Your task to perform on an android device: Search for the best rated phone case for the iPhone 8. Image 0: 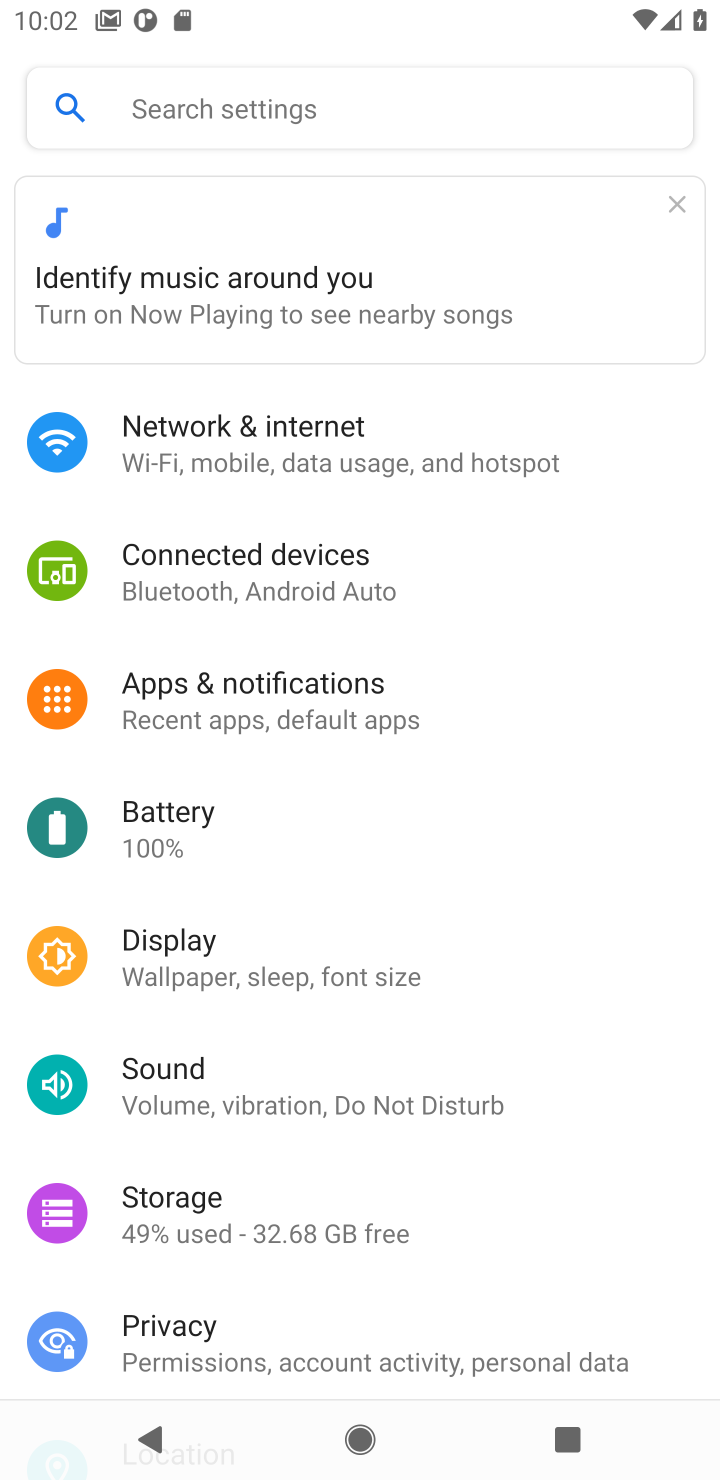
Step 0: press home button
Your task to perform on an android device: Search for the best rated phone case for the iPhone 8. Image 1: 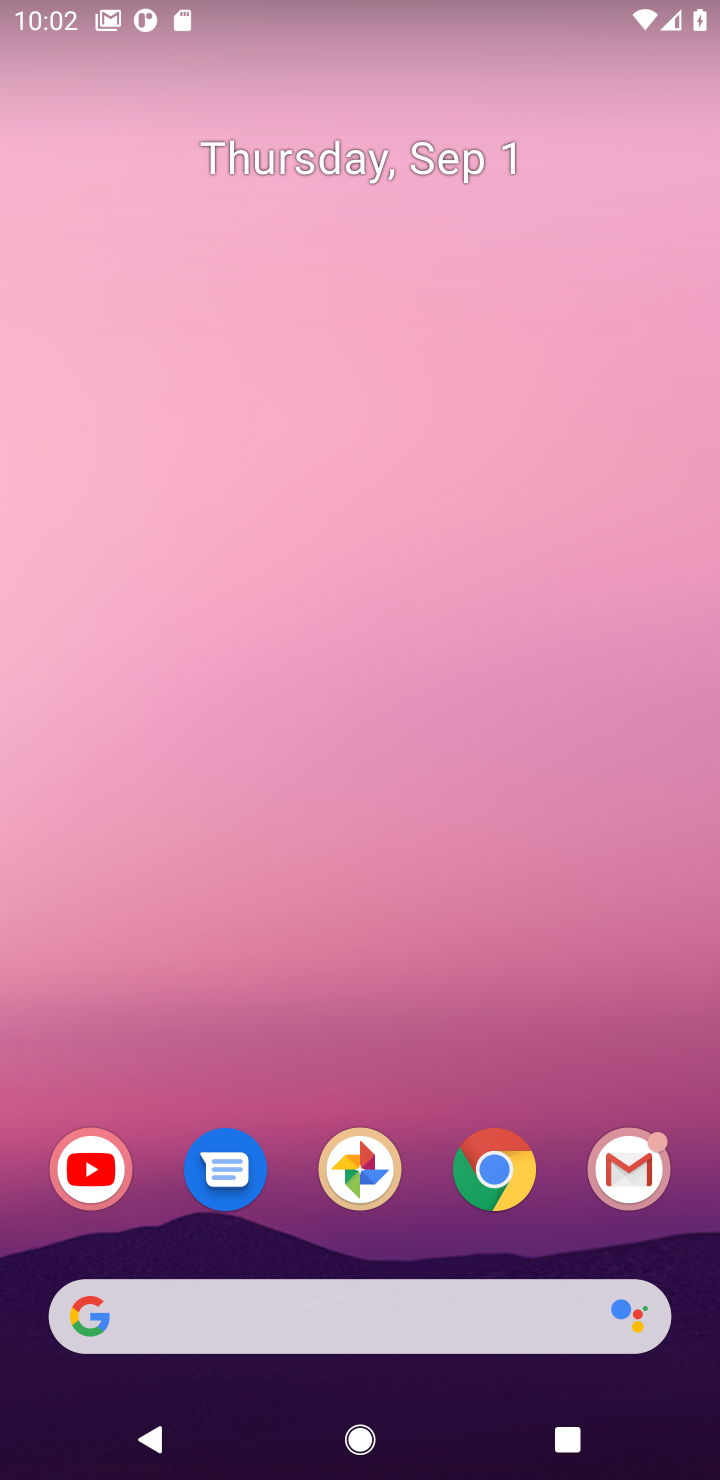
Step 1: drag from (419, 1211) to (444, 175)
Your task to perform on an android device: Search for the best rated phone case for the iPhone 8. Image 2: 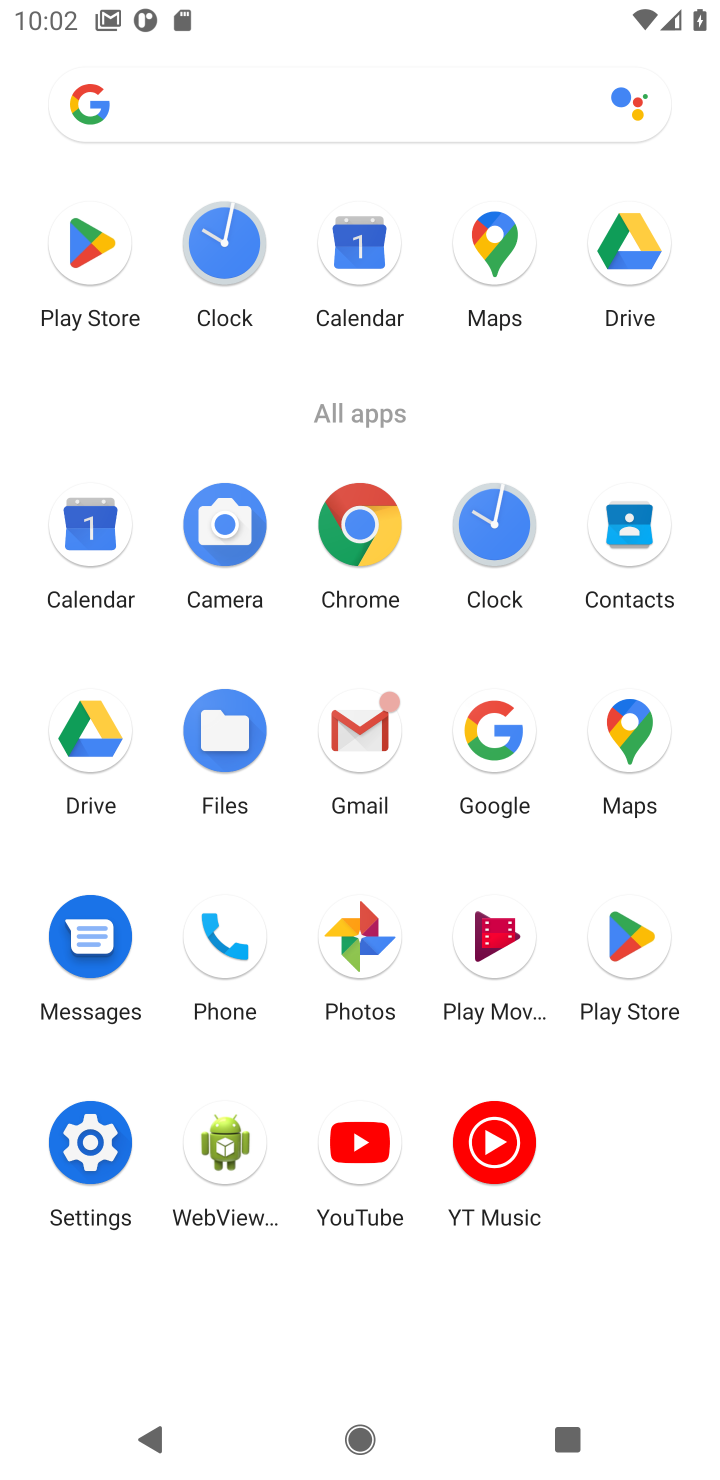
Step 2: click (357, 519)
Your task to perform on an android device: Search for the best rated phone case for the iPhone 8. Image 3: 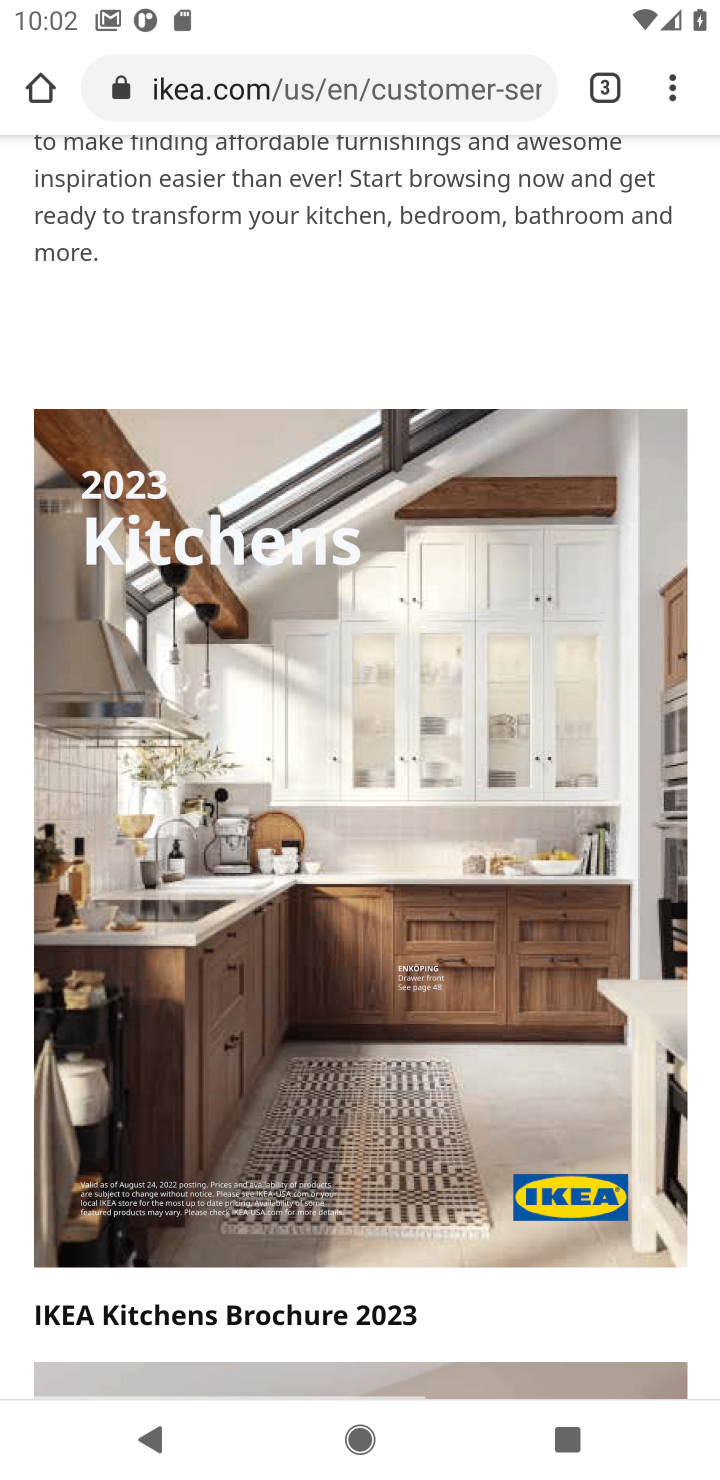
Step 3: click (266, 74)
Your task to perform on an android device: Search for the best rated phone case for the iPhone 8. Image 4: 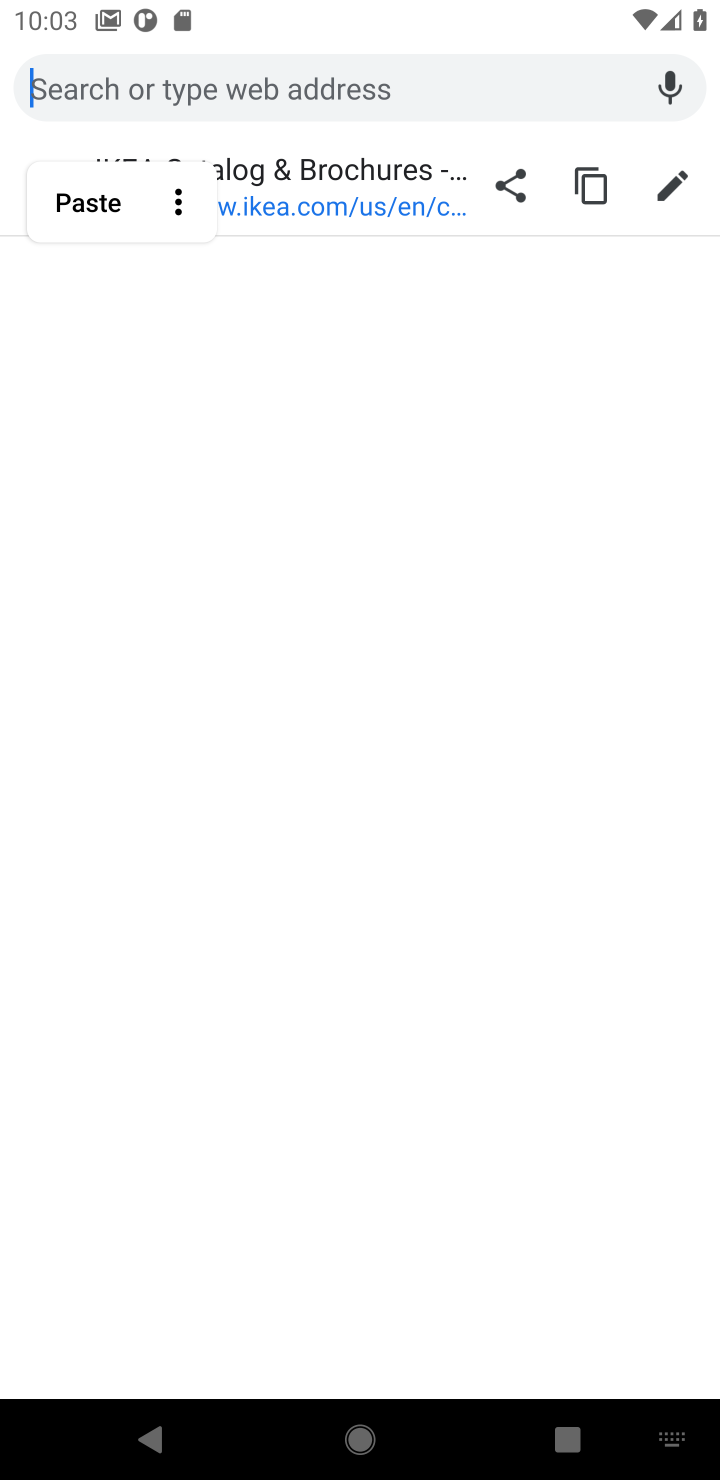
Step 4: type "best rated phone case for the iPhone 8"
Your task to perform on an android device: Search for the best rated phone case for the iPhone 8. Image 5: 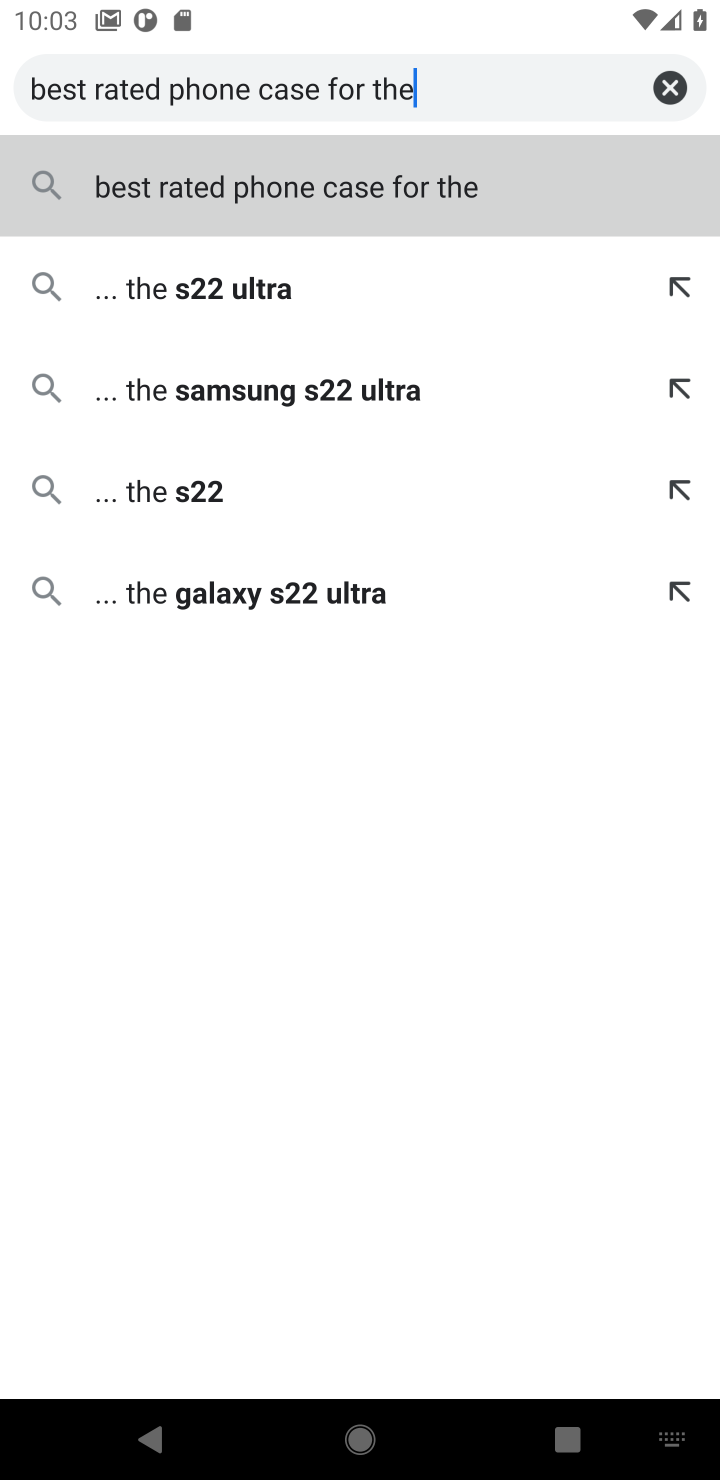
Step 5: type " iPhone 8"
Your task to perform on an android device: Search for the best rated phone case for the iPhone 8. Image 6: 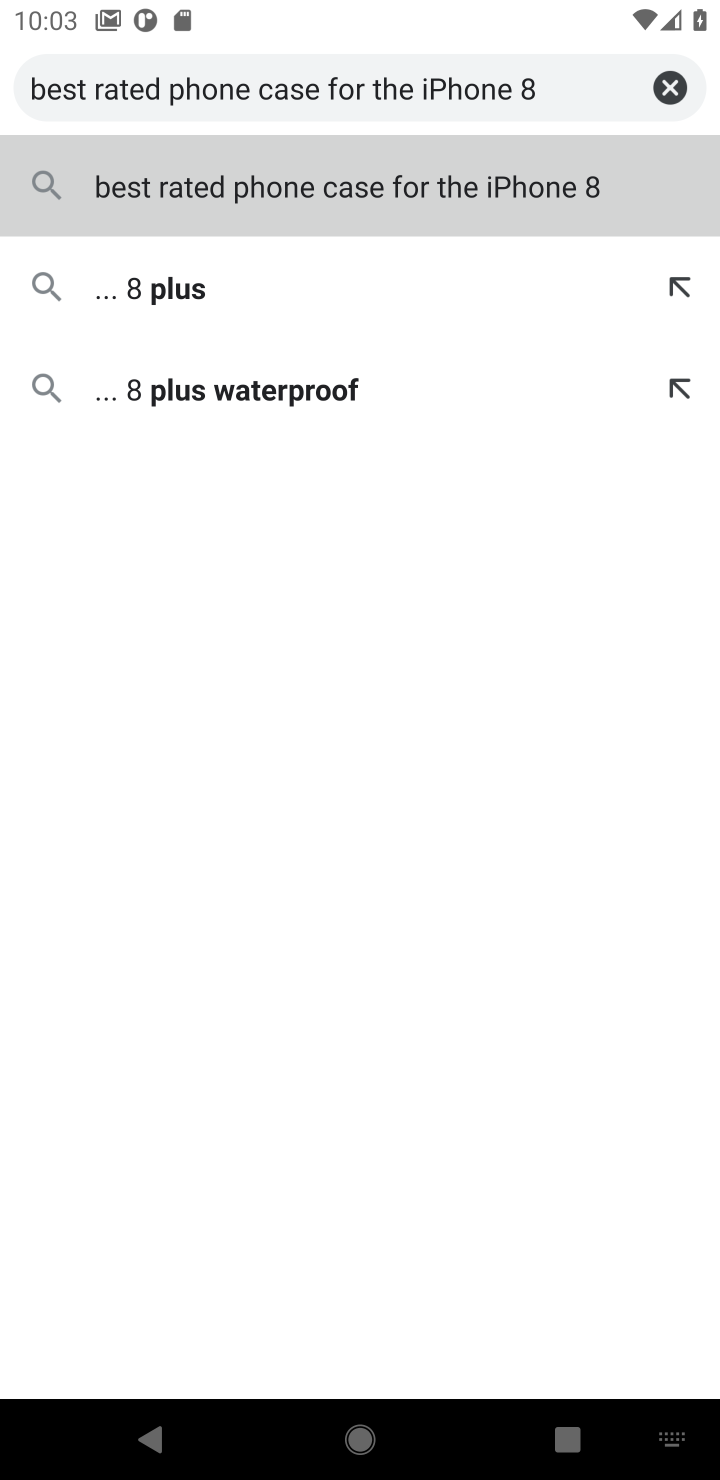
Step 6: click (488, 186)
Your task to perform on an android device: Search for the best rated phone case for the iPhone 8. Image 7: 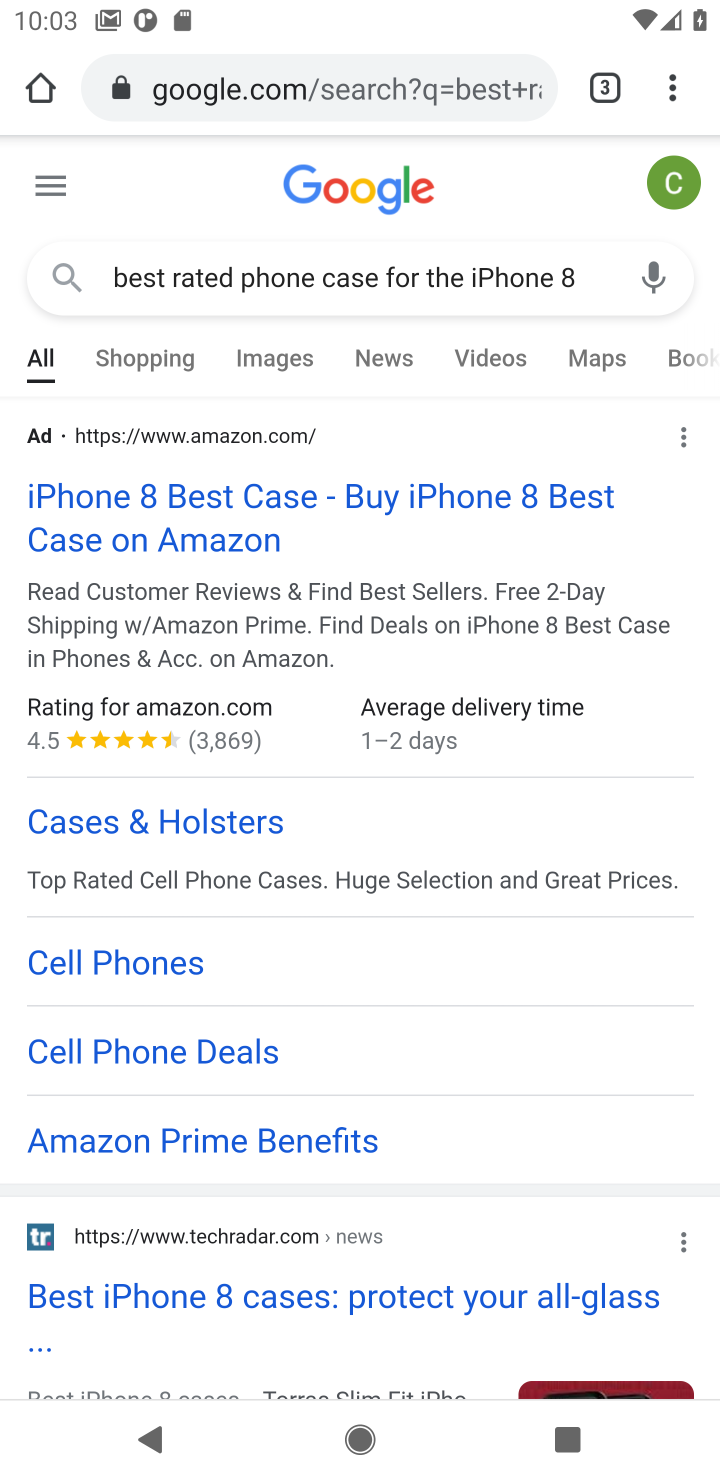
Step 7: click (332, 1297)
Your task to perform on an android device: Search for the best rated phone case for the iPhone 8. Image 8: 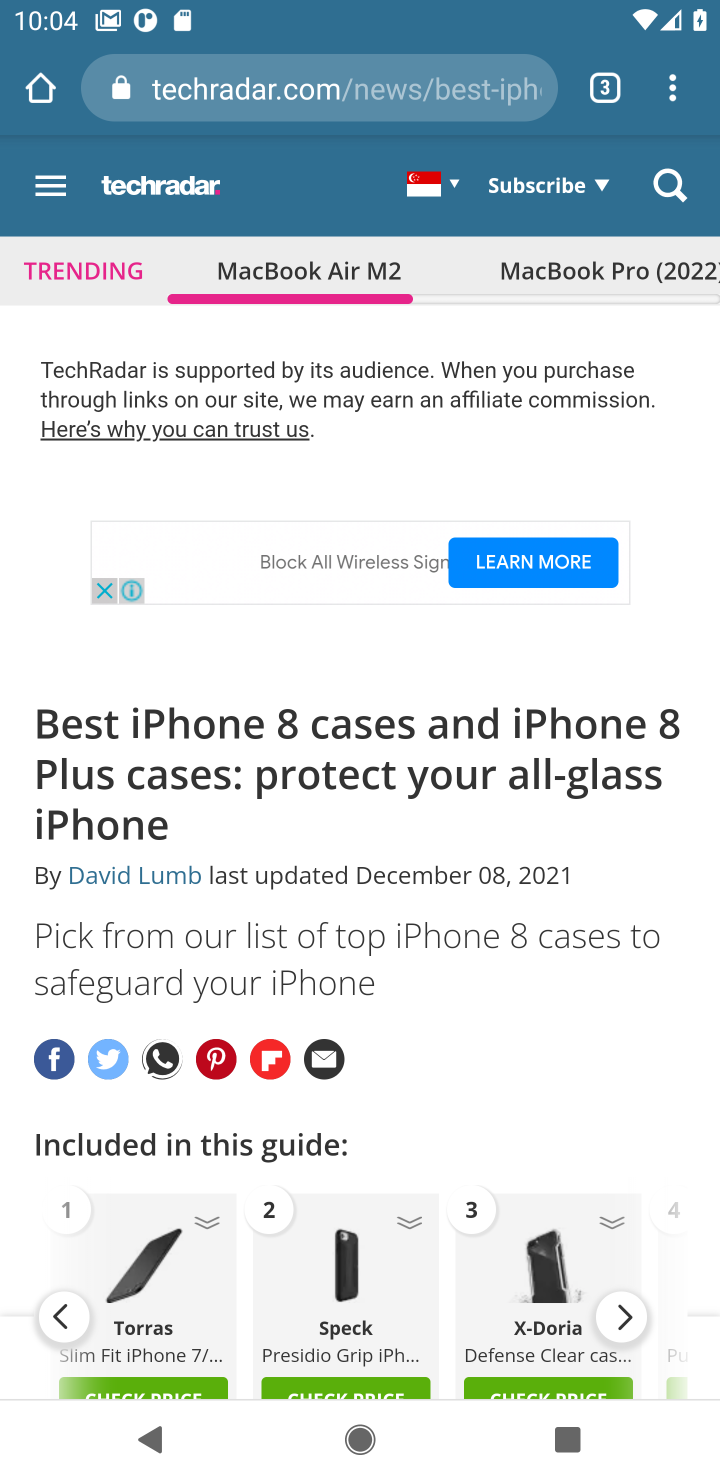
Step 8: drag from (468, 1049) to (432, 425)
Your task to perform on an android device: Search for the best rated phone case for the iPhone 8. Image 9: 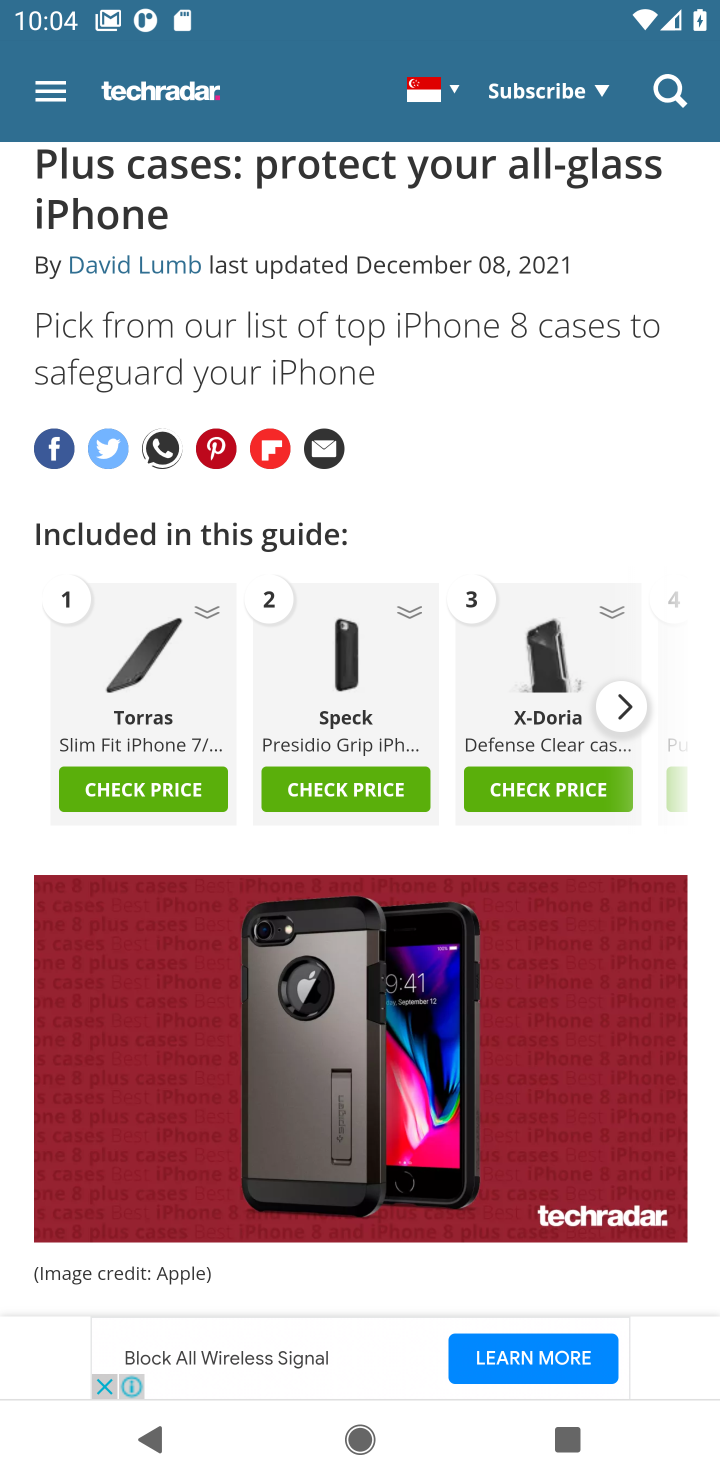
Step 9: drag from (385, 457) to (385, 326)
Your task to perform on an android device: Search for the best rated phone case for the iPhone 8. Image 10: 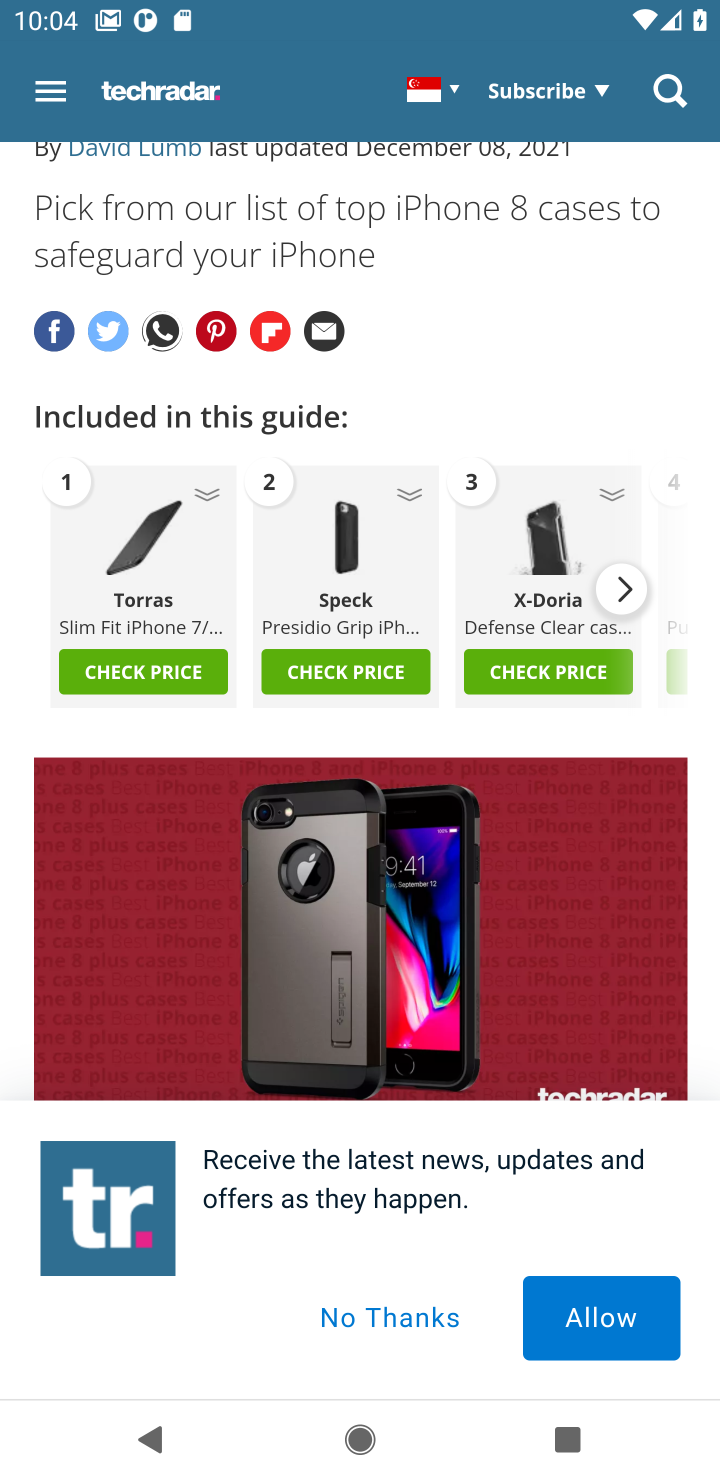
Step 10: drag from (367, 1069) to (409, 306)
Your task to perform on an android device: Search for the best rated phone case for the iPhone 8. Image 11: 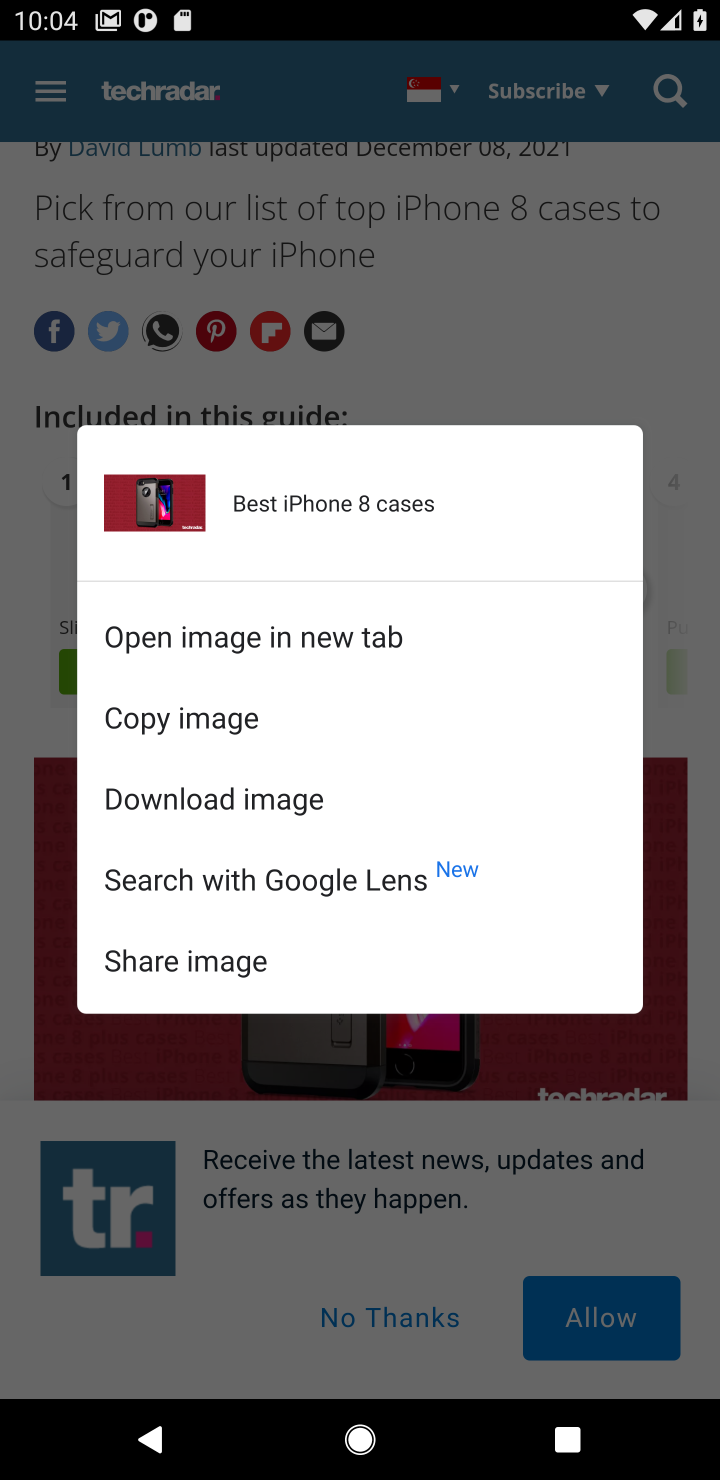
Step 11: click (43, 634)
Your task to perform on an android device: Search for the best rated phone case for the iPhone 8. Image 12: 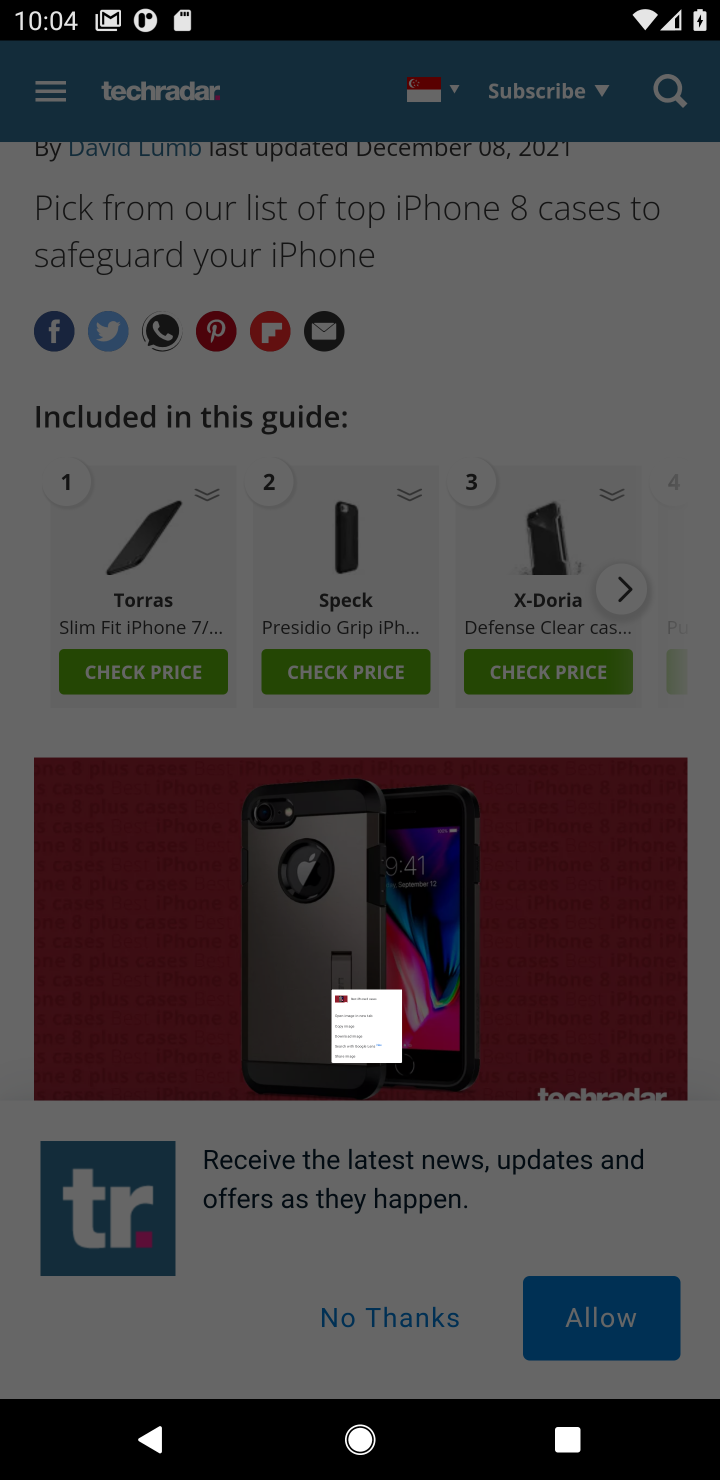
Step 12: click (369, 1319)
Your task to perform on an android device: Search for the best rated phone case for the iPhone 8. Image 13: 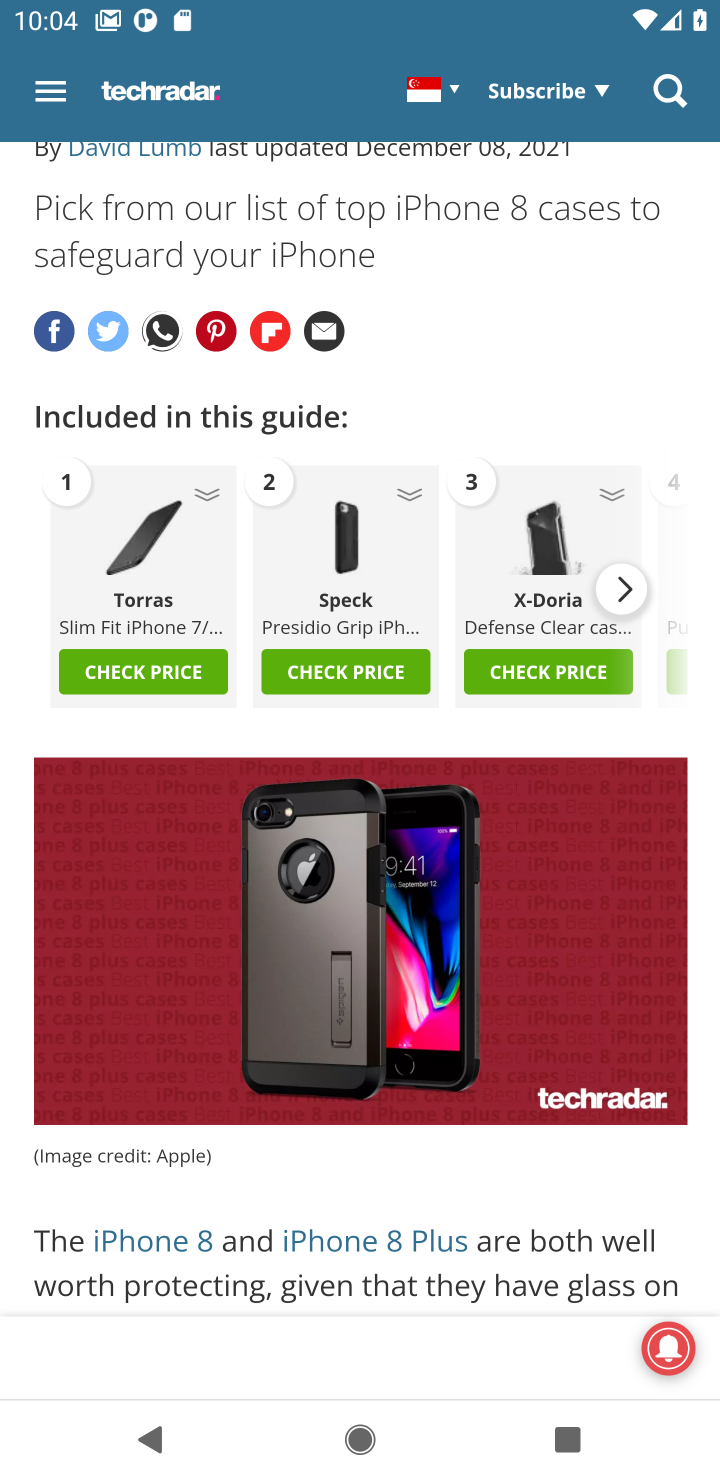
Step 13: click (201, 431)
Your task to perform on an android device: Search for the best rated phone case for the iPhone 8. Image 14: 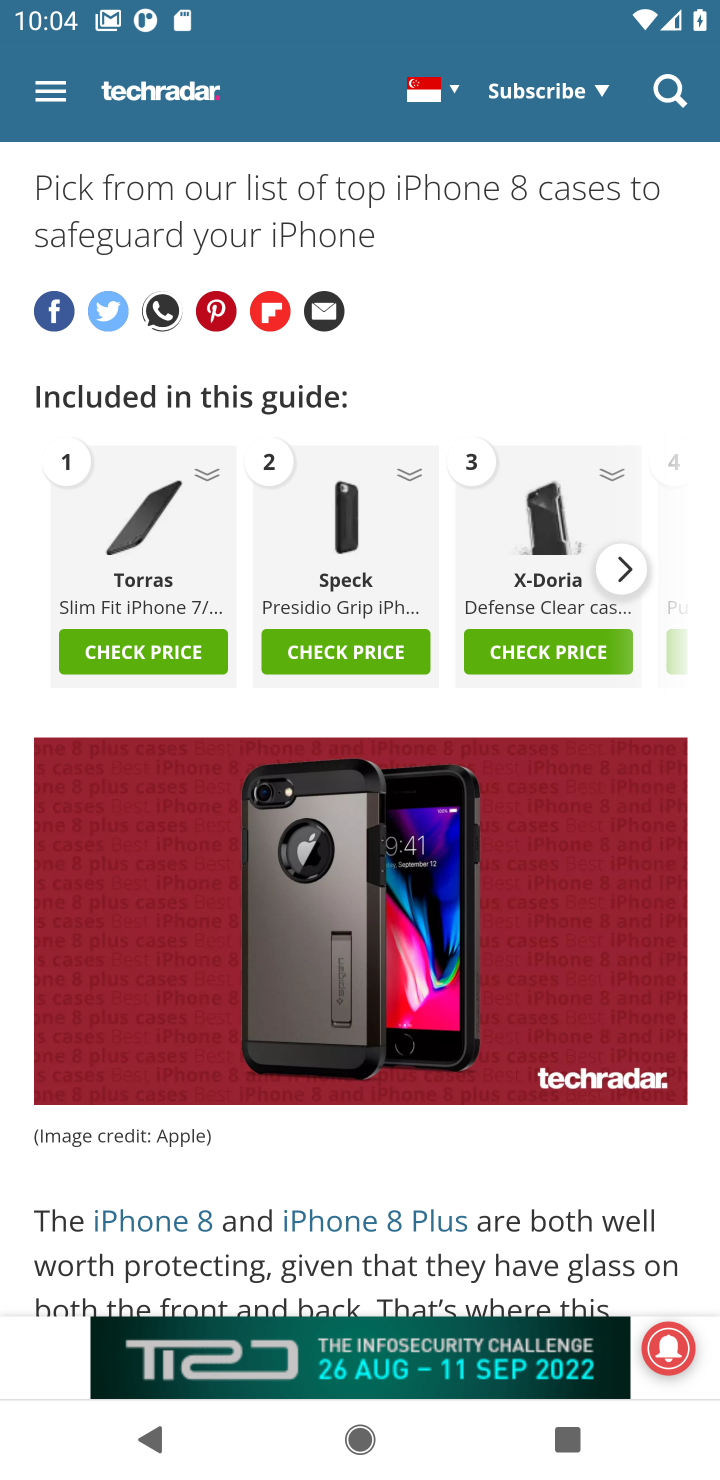
Step 14: task complete